Your task to perform on an android device: Do I have any events tomorrow? Image 0: 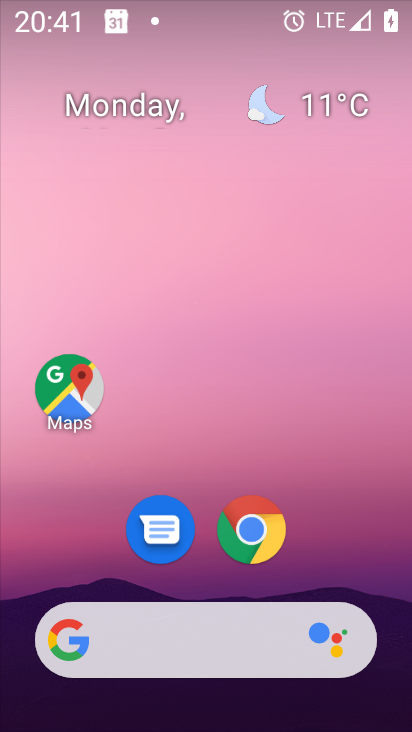
Step 0: drag from (191, 635) to (176, 62)
Your task to perform on an android device: Do I have any events tomorrow? Image 1: 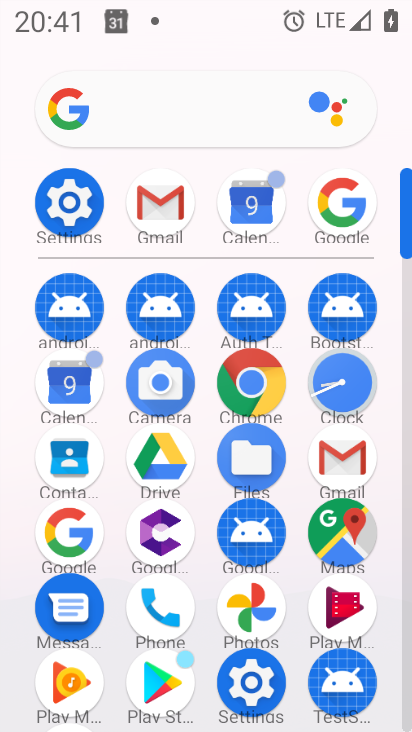
Step 1: click (61, 381)
Your task to perform on an android device: Do I have any events tomorrow? Image 2: 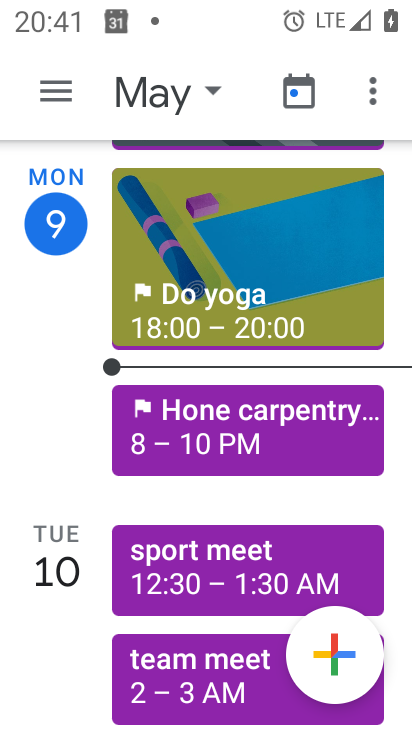
Step 2: task complete